Your task to perform on an android device: Open location settings Image 0: 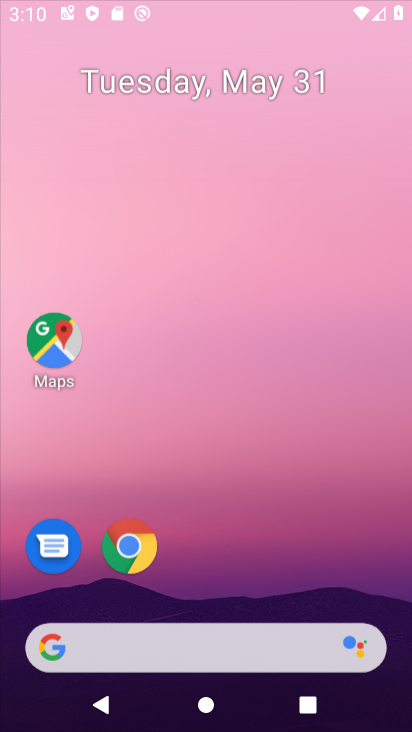
Step 0: drag from (230, 400) to (223, 141)
Your task to perform on an android device: Open location settings Image 1: 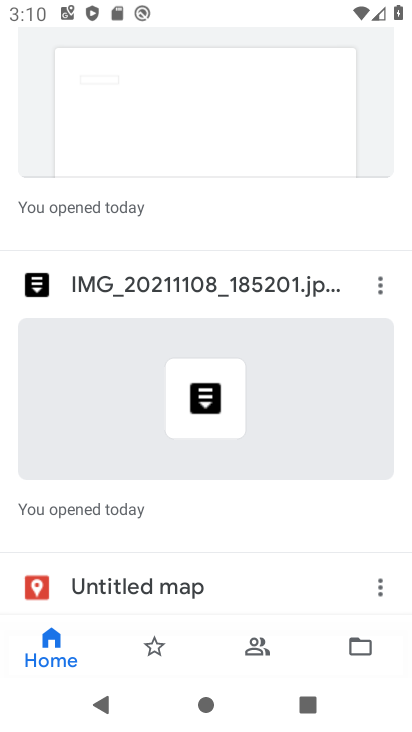
Step 1: press home button
Your task to perform on an android device: Open location settings Image 2: 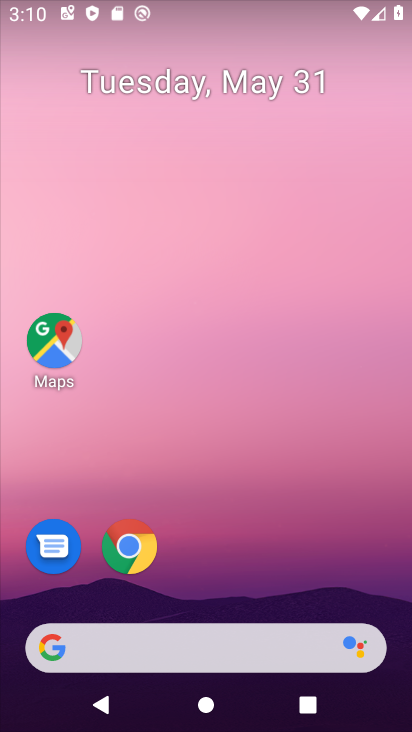
Step 2: drag from (210, 556) to (213, 144)
Your task to perform on an android device: Open location settings Image 3: 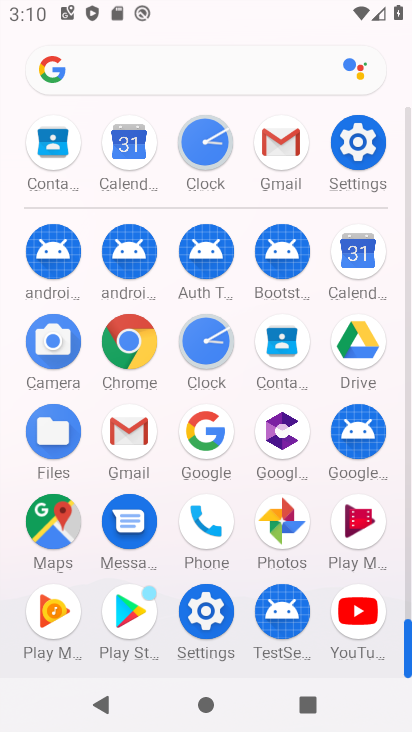
Step 3: click (356, 143)
Your task to perform on an android device: Open location settings Image 4: 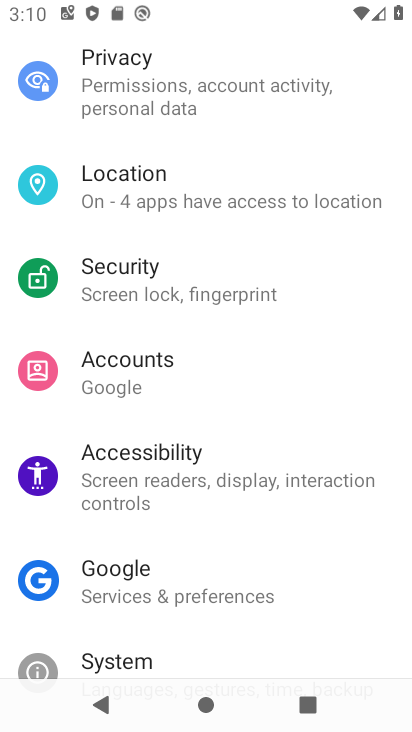
Step 4: click (295, 189)
Your task to perform on an android device: Open location settings Image 5: 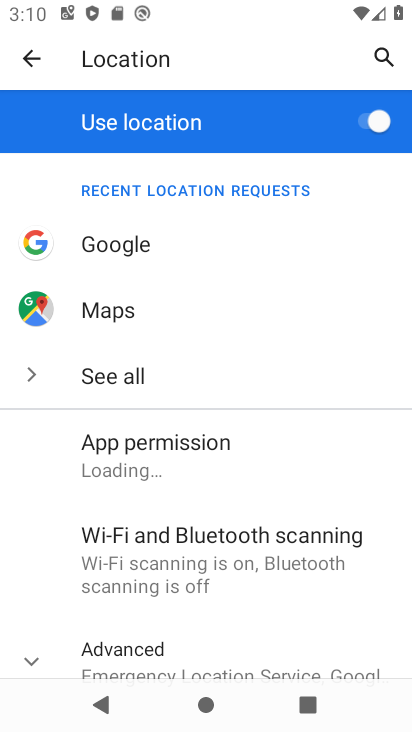
Step 5: task complete